Your task to perform on an android device: change the clock style Image 0: 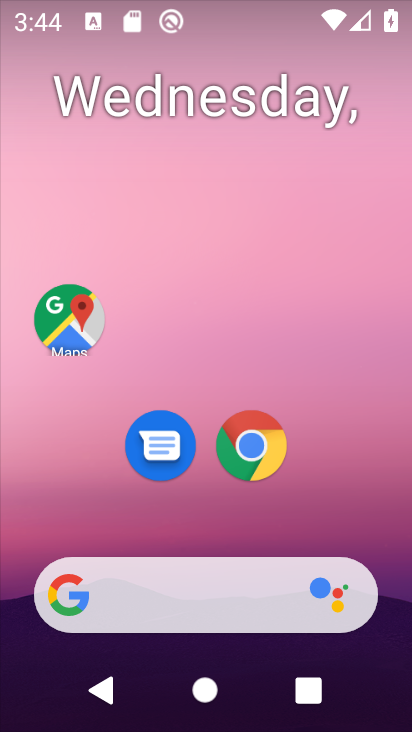
Step 0: drag from (374, 500) to (393, 4)
Your task to perform on an android device: change the clock style Image 1: 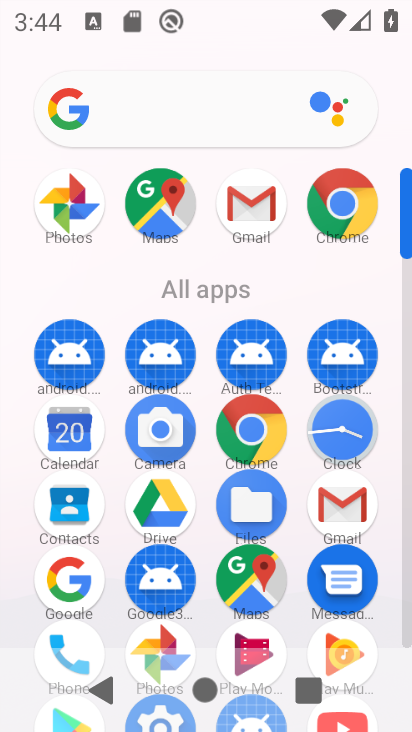
Step 1: click (337, 434)
Your task to perform on an android device: change the clock style Image 2: 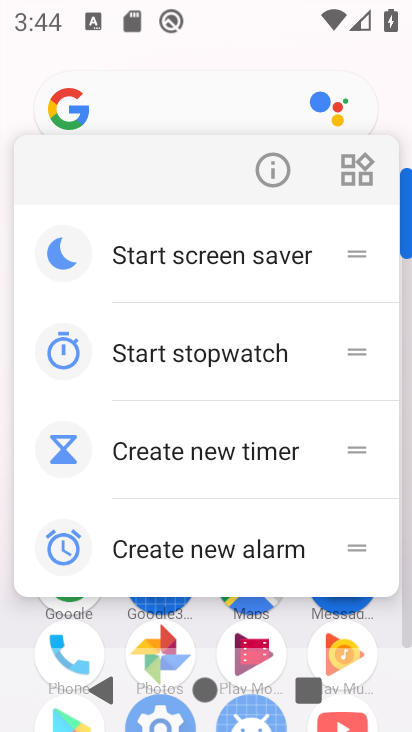
Step 2: click (406, 335)
Your task to perform on an android device: change the clock style Image 3: 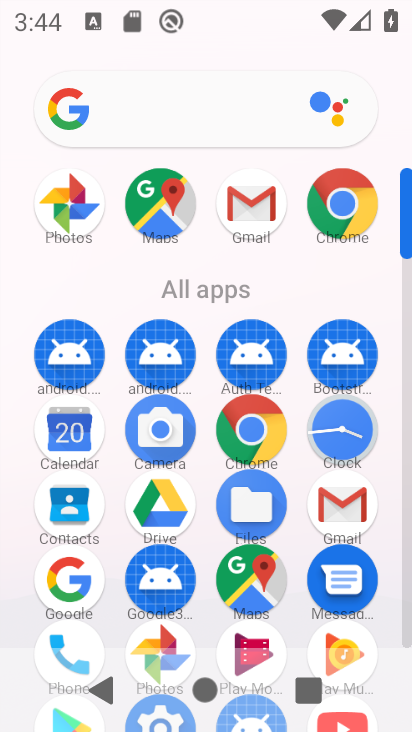
Step 3: click (344, 431)
Your task to perform on an android device: change the clock style Image 4: 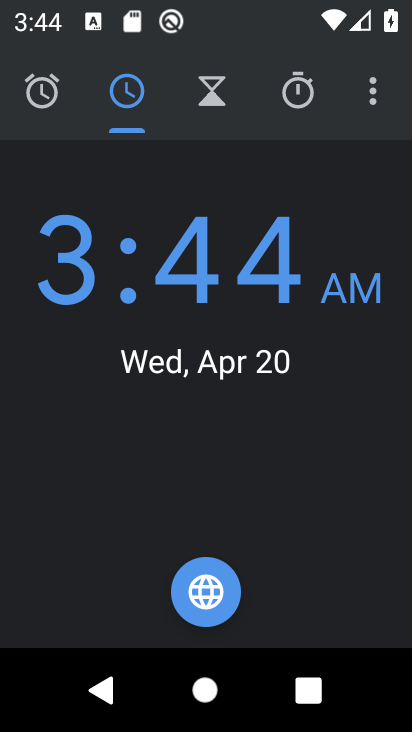
Step 4: click (367, 95)
Your task to perform on an android device: change the clock style Image 5: 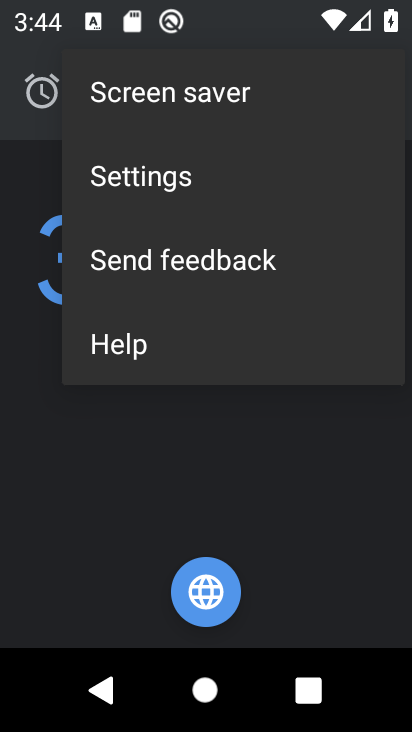
Step 5: click (108, 182)
Your task to perform on an android device: change the clock style Image 6: 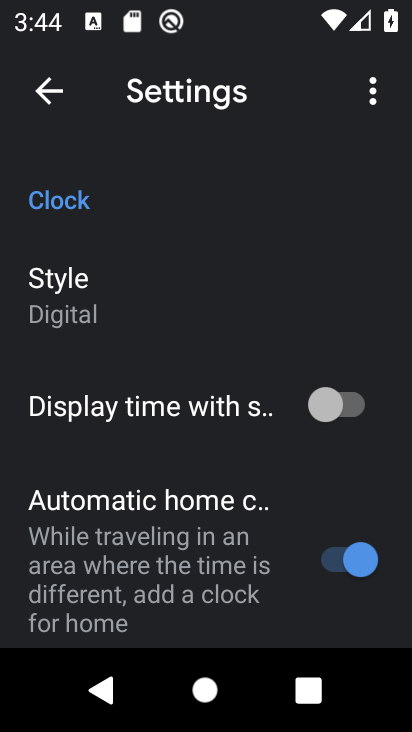
Step 6: click (71, 312)
Your task to perform on an android device: change the clock style Image 7: 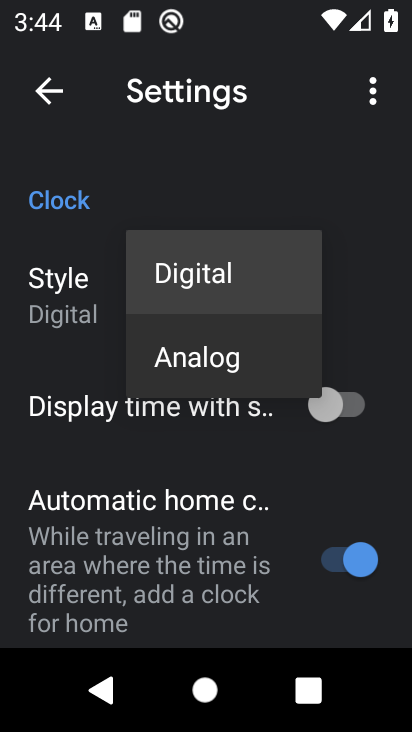
Step 7: click (176, 365)
Your task to perform on an android device: change the clock style Image 8: 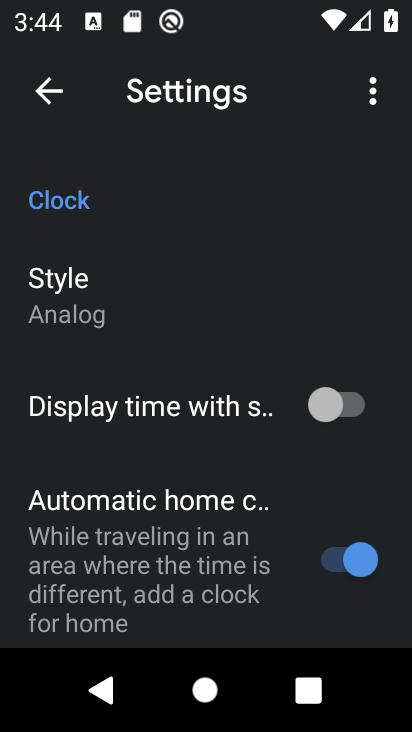
Step 8: task complete